Your task to perform on an android device: Open internet settings Image 0: 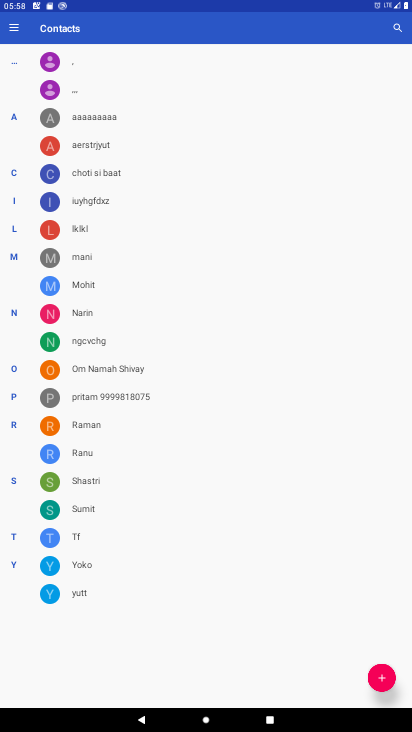
Step 0: drag from (218, 13) to (194, 502)
Your task to perform on an android device: Open internet settings Image 1: 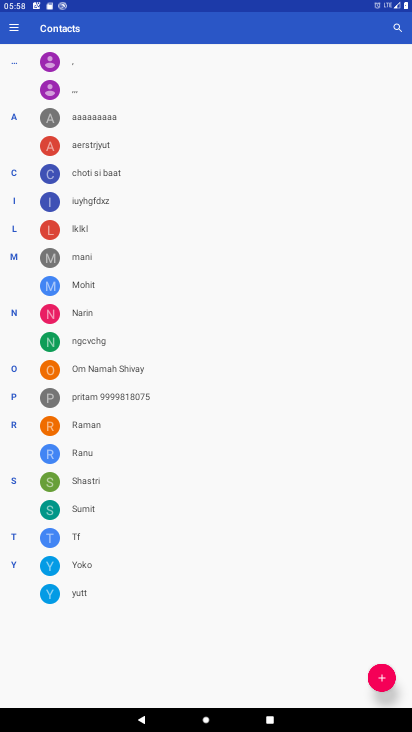
Step 1: drag from (154, 318) to (147, 633)
Your task to perform on an android device: Open internet settings Image 2: 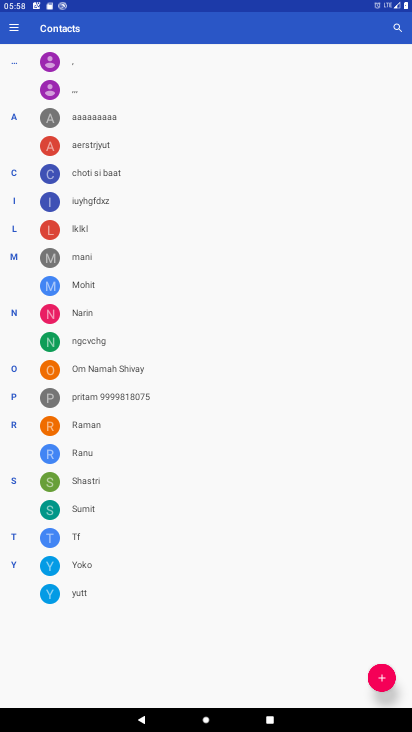
Step 2: drag from (200, 150) to (225, 495)
Your task to perform on an android device: Open internet settings Image 3: 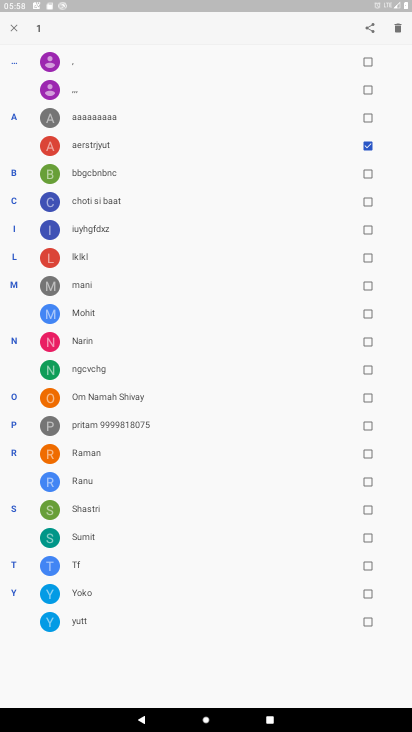
Step 3: drag from (235, 9) to (238, 458)
Your task to perform on an android device: Open internet settings Image 4: 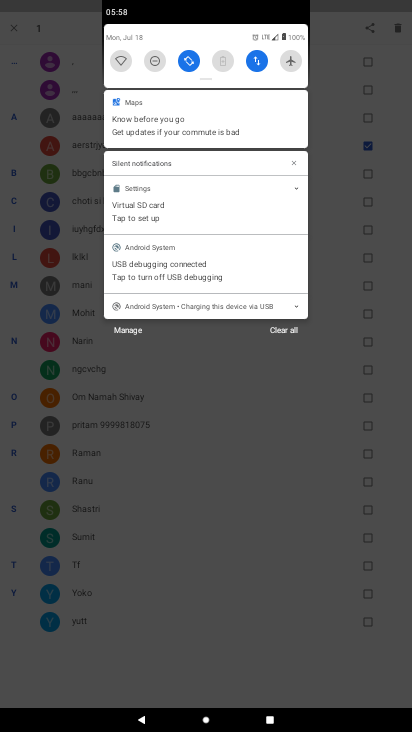
Step 4: click (255, 52)
Your task to perform on an android device: Open internet settings Image 5: 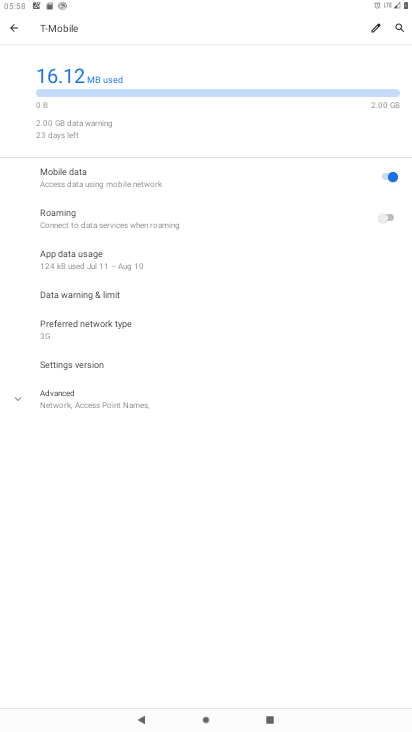
Step 5: task complete